Your task to perform on an android device: open app "TextNow: Call + Text Unlimited" Image 0: 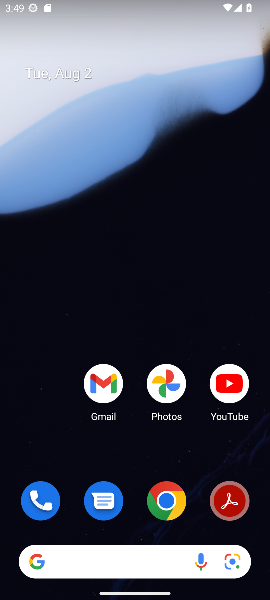
Step 0: drag from (204, 353) to (138, 136)
Your task to perform on an android device: open app "TextNow: Call + Text Unlimited" Image 1: 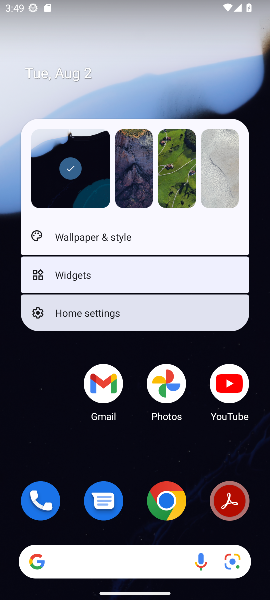
Step 1: click (162, 77)
Your task to perform on an android device: open app "TextNow: Call + Text Unlimited" Image 2: 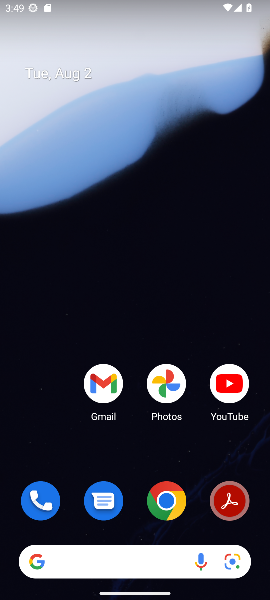
Step 2: drag from (218, 307) to (110, 10)
Your task to perform on an android device: open app "TextNow: Call + Text Unlimited" Image 3: 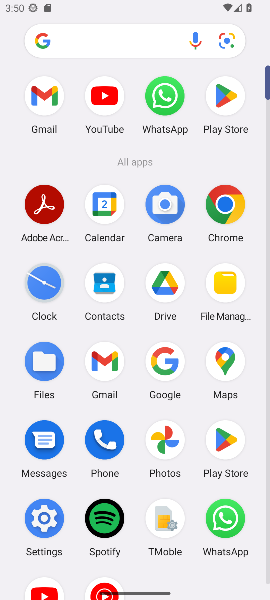
Step 3: click (224, 443)
Your task to perform on an android device: open app "TextNow: Call + Text Unlimited" Image 4: 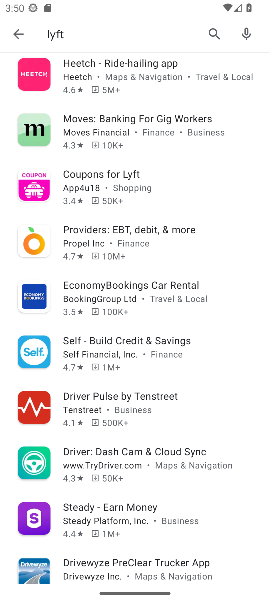
Step 4: click (210, 33)
Your task to perform on an android device: open app "TextNow: Call + Text Unlimited" Image 5: 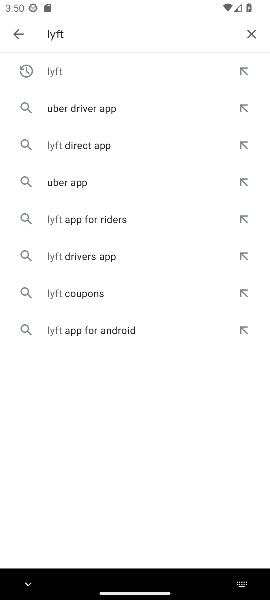
Step 5: click (254, 32)
Your task to perform on an android device: open app "TextNow: Call + Text Unlimited" Image 6: 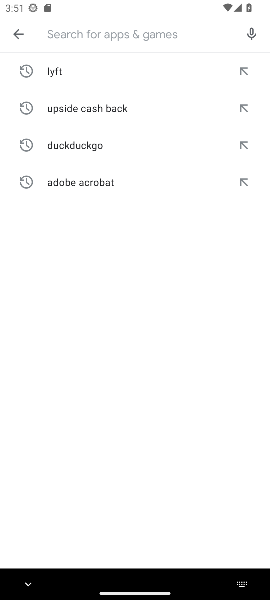
Step 6: type "textnow: call"
Your task to perform on an android device: open app "TextNow: Call + Text Unlimited" Image 7: 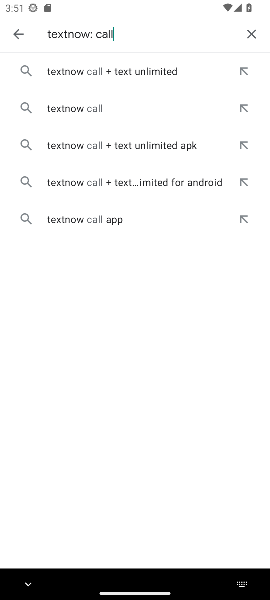
Step 7: click (80, 66)
Your task to perform on an android device: open app "TextNow: Call + Text Unlimited" Image 8: 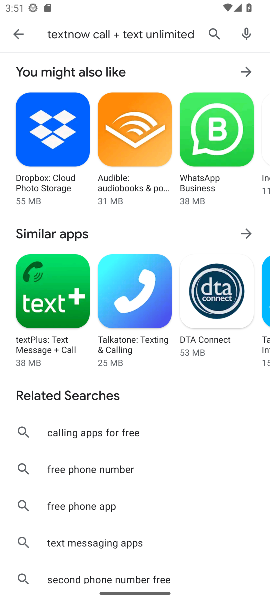
Step 8: task complete